Your task to perform on an android device: turn on wifi Image 0: 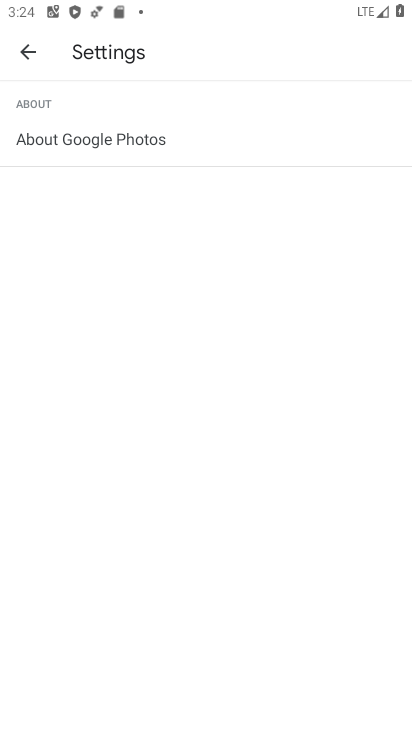
Step 0: press home button
Your task to perform on an android device: turn on wifi Image 1: 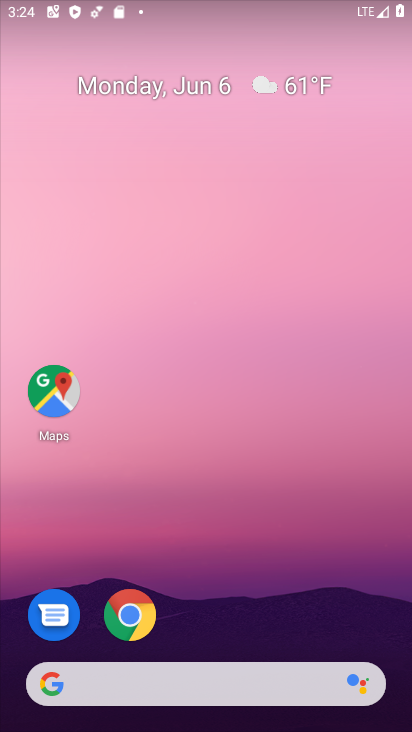
Step 1: drag from (390, 624) to (297, 92)
Your task to perform on an android device: turn on wifi Image 2: 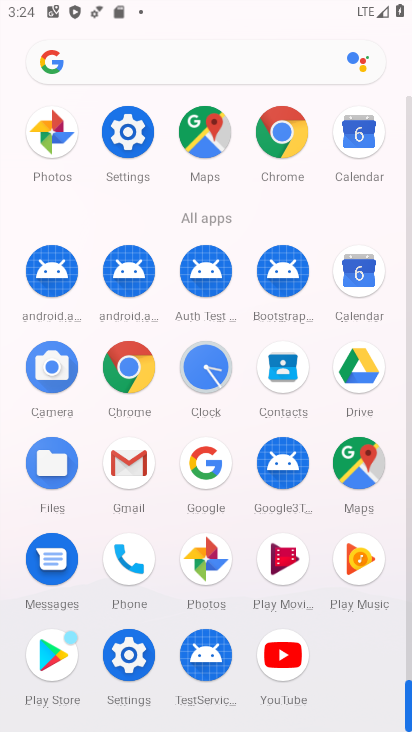
Step 2: click (129, 655)
Your task to perform on an android device: turn on wifi Image 3: 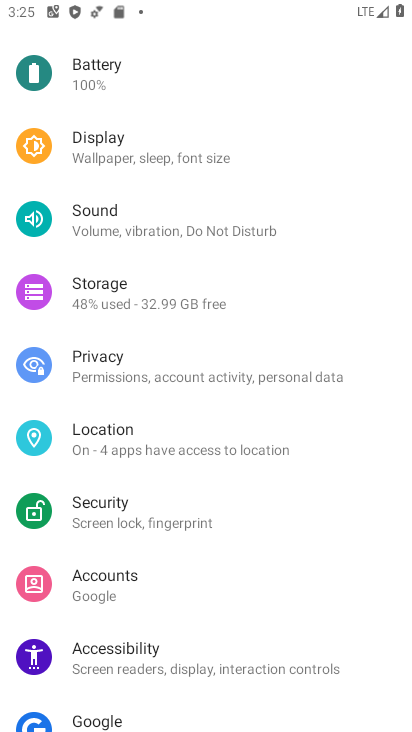
Step 3: drag from (328, 103) to (377, 430)
Your task to perform on an android device: turn on wifi Image 4: 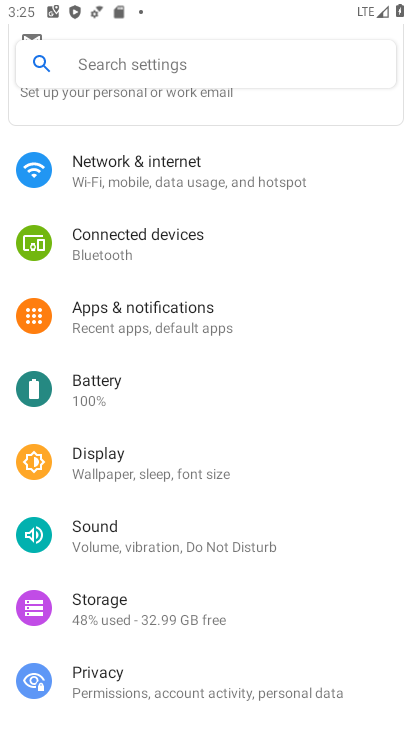
Step 4: click (125, 159)
Your task to perform on an android device: turn on wifi Image 5: 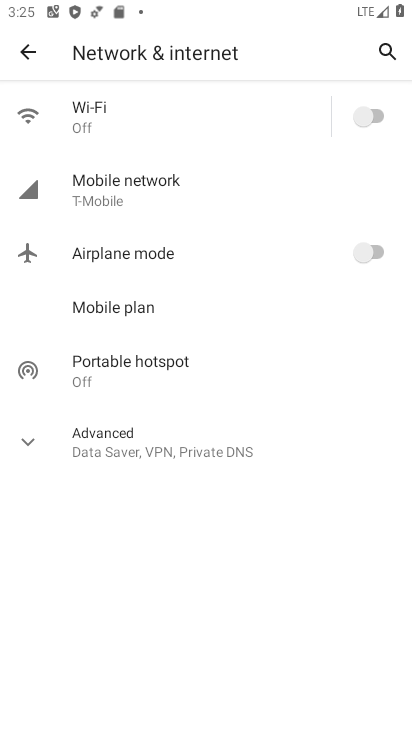
Step 5: click (378, 111)
Your task to perform on an android device: turn on wifi Image 6: 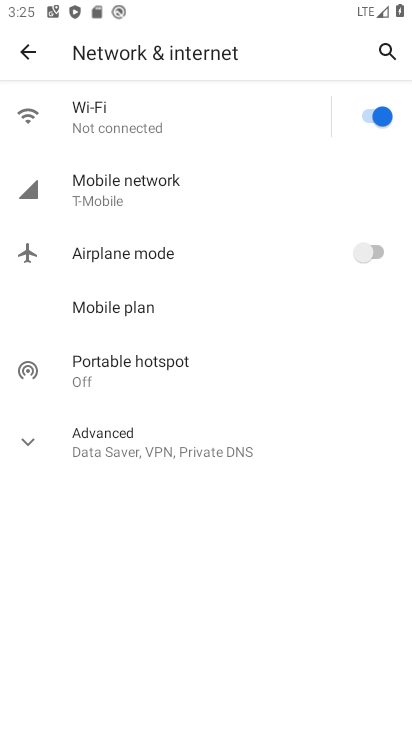
Step 6: task complete